Your task to perform on an android device: stop showing notifications on the lock screen Image 0: 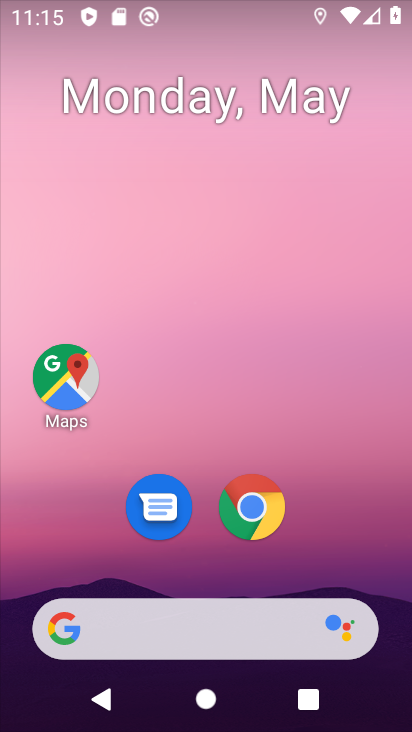
Step 0: drag from (354, 574) to (315, 153)
Your task to perform on an android device: stop showing notifications on the lock screen Image 1: 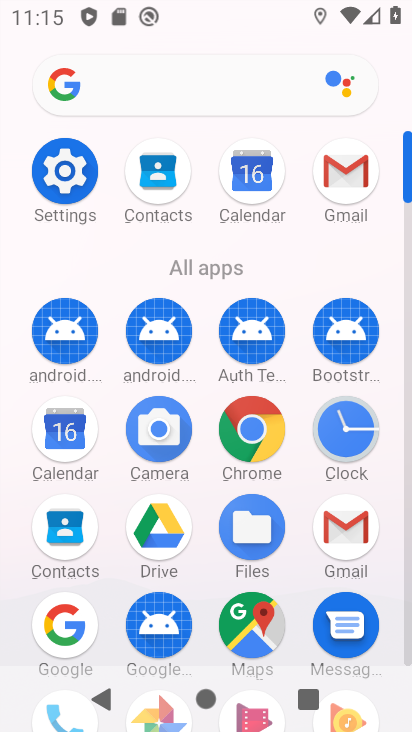
Step 1: click (58, 187)
Your task to perform on an android device: stop showing notifications on the lock screen Image 2: 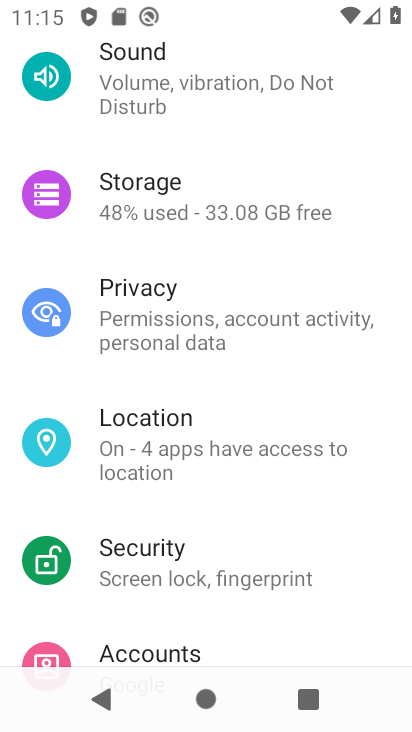
Step 2: drag from (240, 154) to (288, 594)
Your task to perform on an android device: stop showing notifications on the lock screen Image 3: 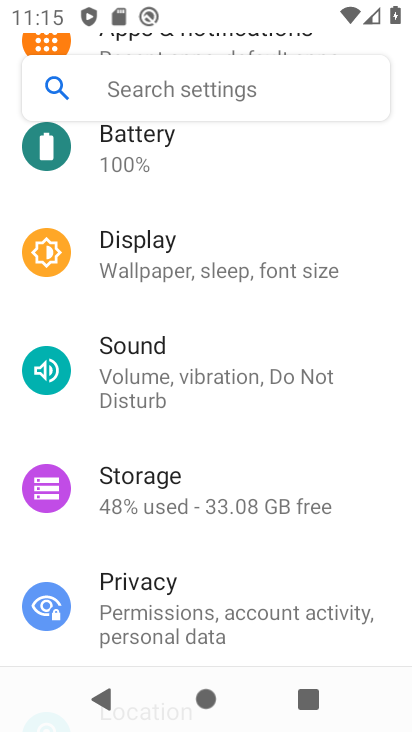
Step 3: drag from (258, 191) to (284, 571)
Your task to perform on an android device: stop showing notifications on the lock screen Image 4: 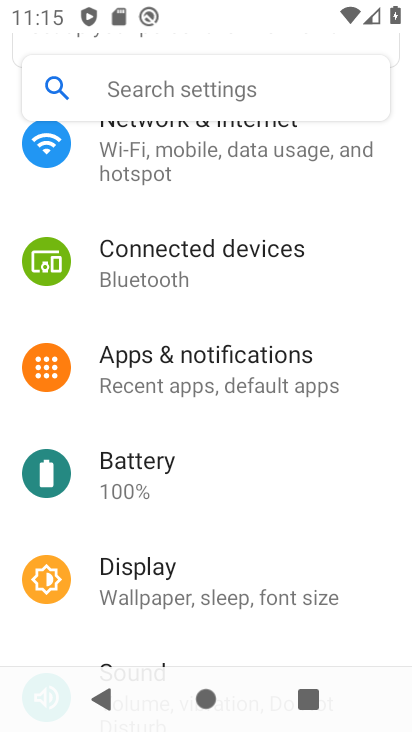
Step 4: click (262, 351)
Your task to perform on an android device: stop showing notifications on the lock screen Image 5: 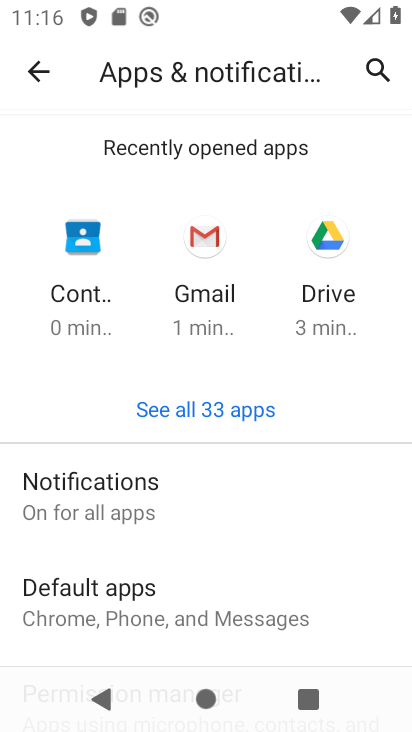
Step 5: click (236, 490)
Your task to perform on an android device: stop showing notifications on the lock screen Image 6: 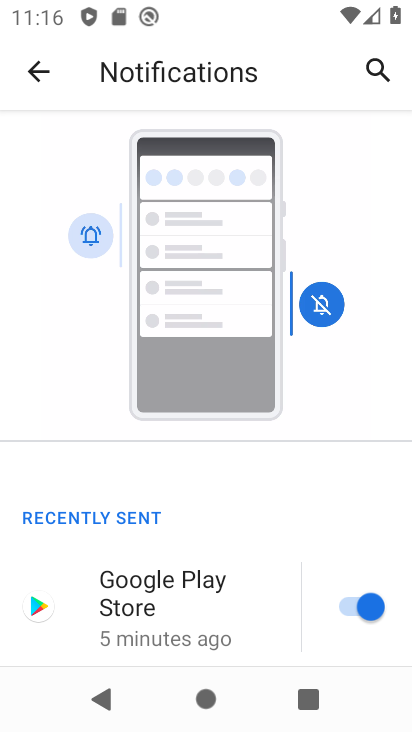
Step 6: drag from (238, 549) to (182, 159)
Your task to perform on an android device: stop showing notifications on the lock screen Image 7: 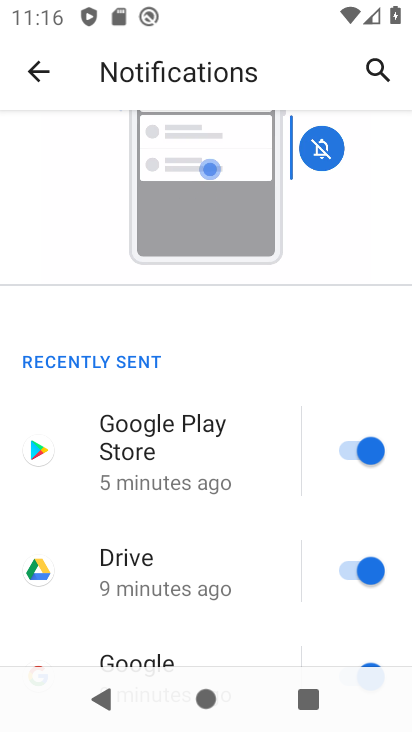
Step 7: drag from (223, 535) to (235, 9)
Your task to perform on an android device: stop showing notifications on the lock screen Image 8: 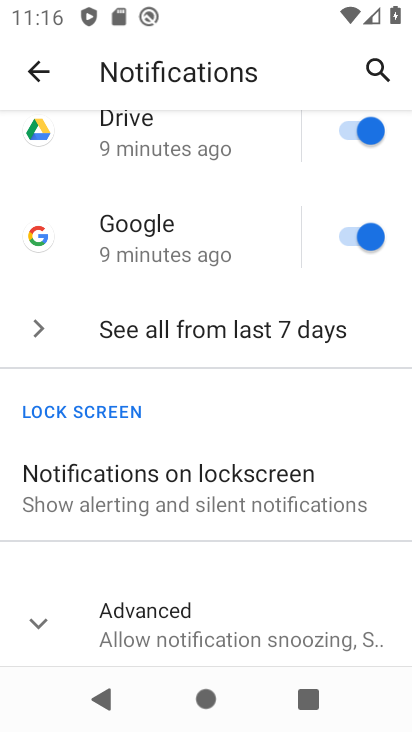
Step 8: click (252, 511)
Your task to perform on an android device: stop showing notifications on the lock screen Image 9: 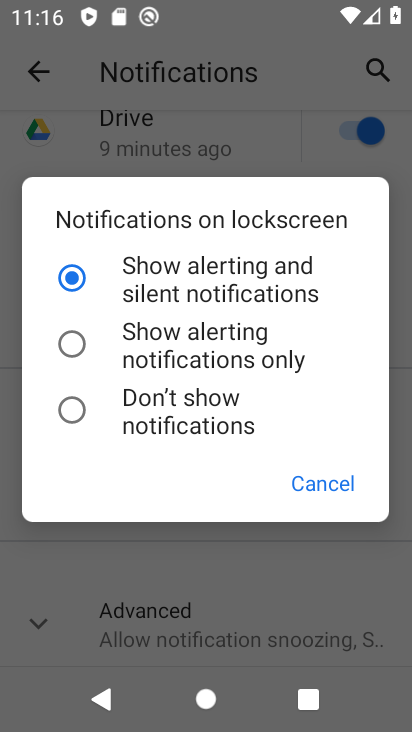
Step 9: click (209, 391)
Your task to perform on an android device: stop showing notifications on the lock screen Image 10: 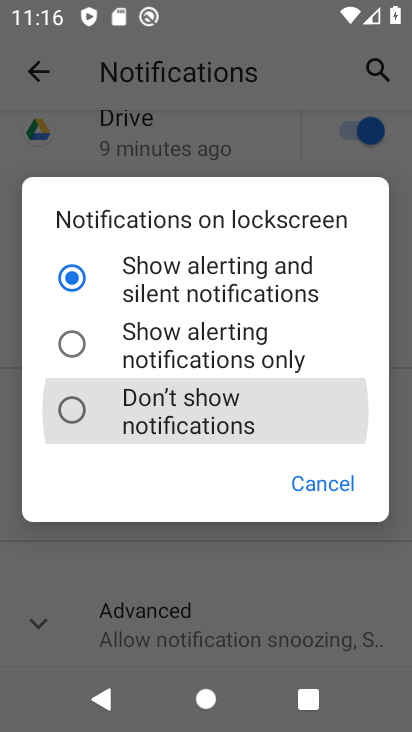
Step 10: click (209, 391)
Your task to perform on an android device: stop showing notifications on the lock screen Image 11: 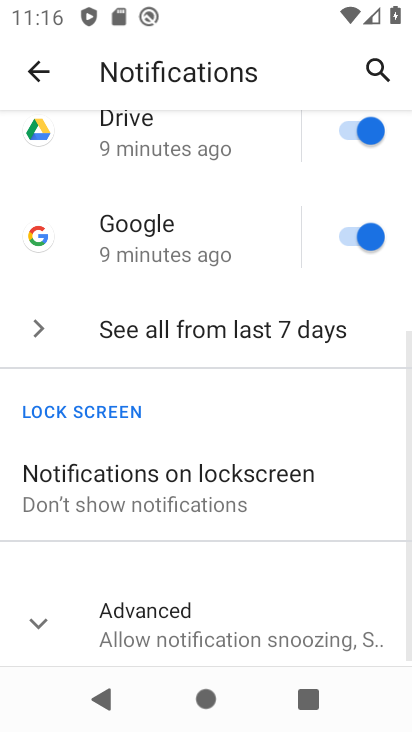
Step 11: task complete